Your task to perform on an android device: Toggle the flashlight Image 0: 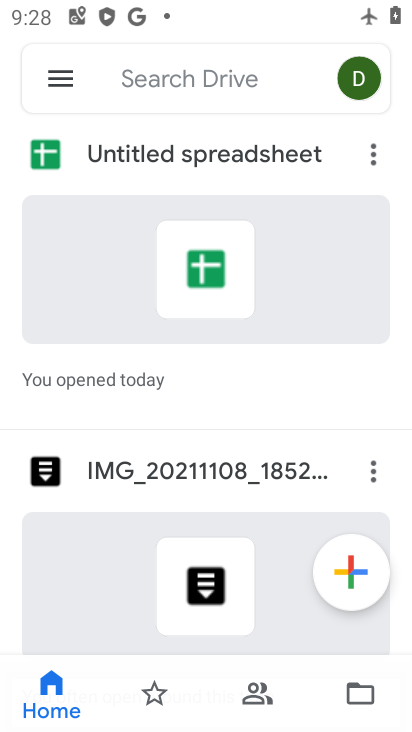
Step 0: press home button
Your task to perform on an android device: Toggle the flashlight Image 1: 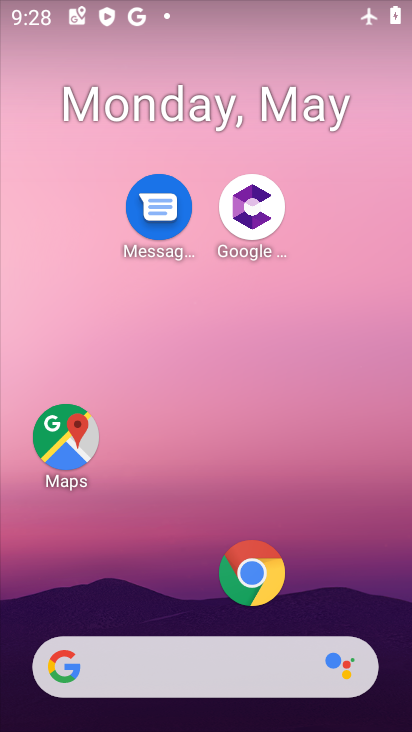
Step 1: task complete